Your task to perform on an android device: Go to internet settings Image 0: 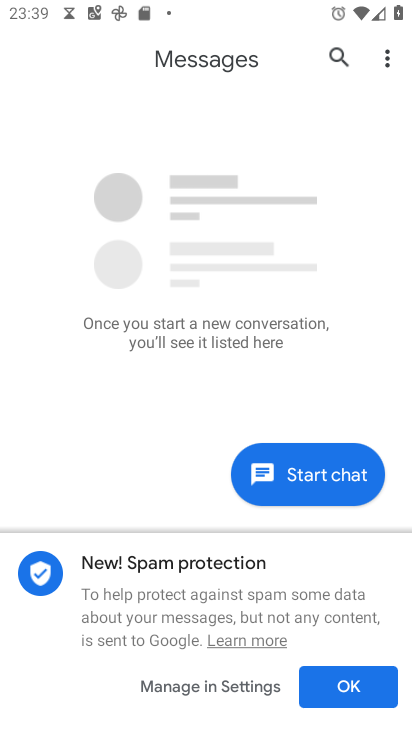
Step 0: press home button
Your task to perform on an android device: Go to internet settings Image 1: 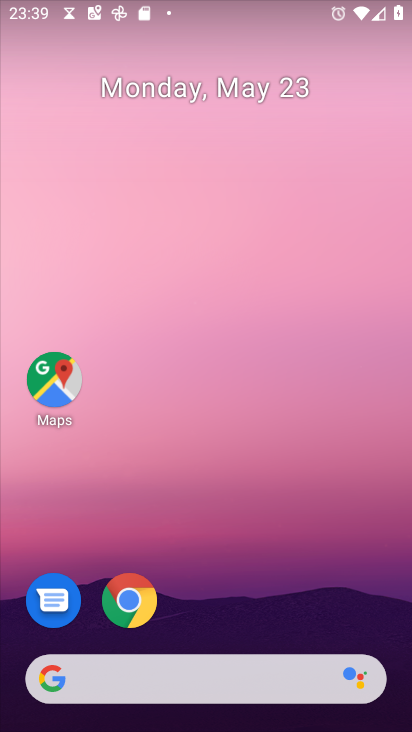
Step 1: drag from (212, 725) to (215, 86)
Your task to perform on an android device: Go to internet settings Image 2: 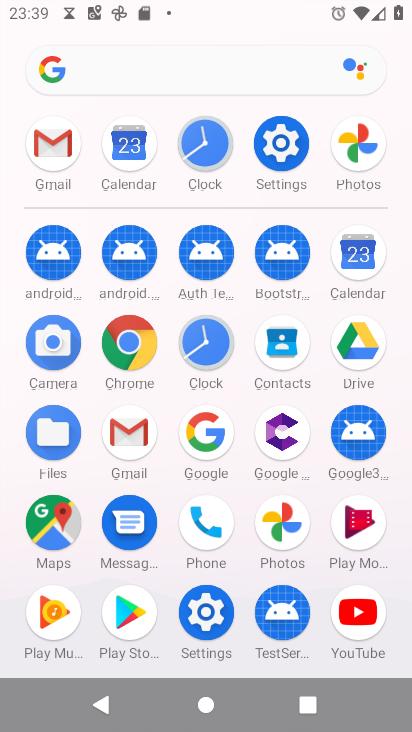
Step 2: click (285, 141)
Your task to perform on an android device: Go to internet settings Image 3: 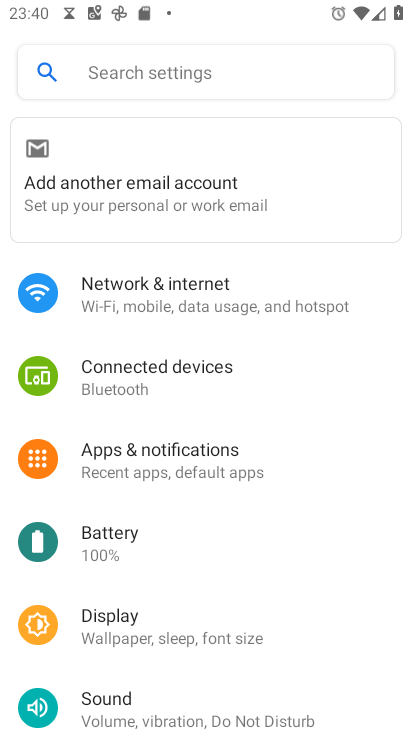
Step 3: click (153, 291)
Your task to perform on an android device: Go to internet settings Image 4: 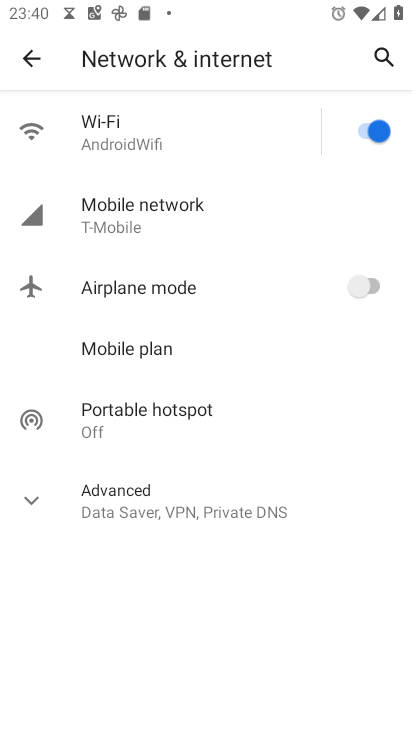
Step 4: click (120, 210)
Your task to perform on an android device: Go to internet settings Image 5: 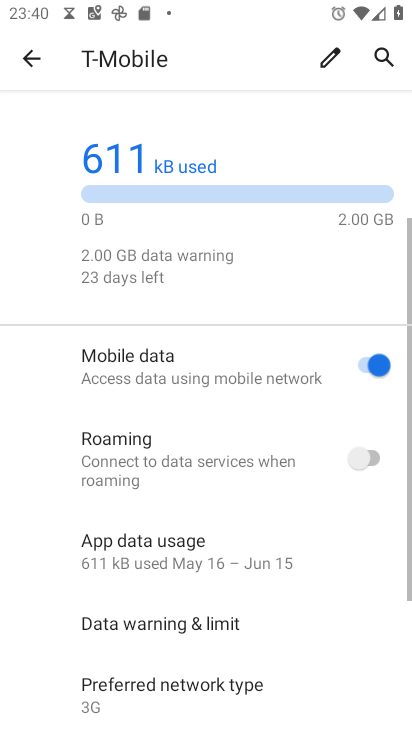
Step 5: task complete